Your task to perform on an android device: turn on javascript in the chrome app Image 0: 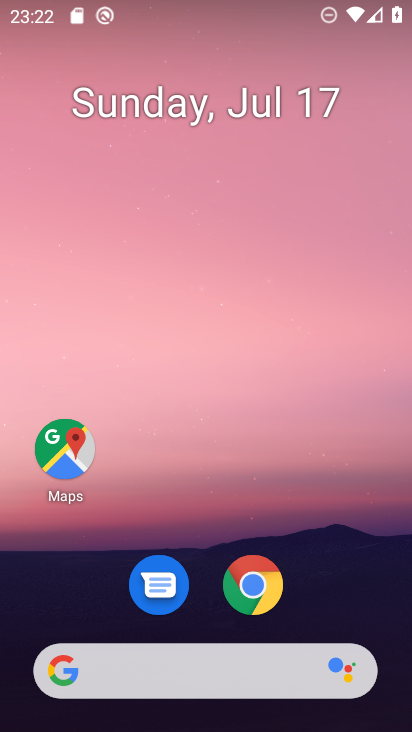
Step 0: click (259, 600)
Your task to perform on an android device: turn on javascript in the chrome app Image 1: 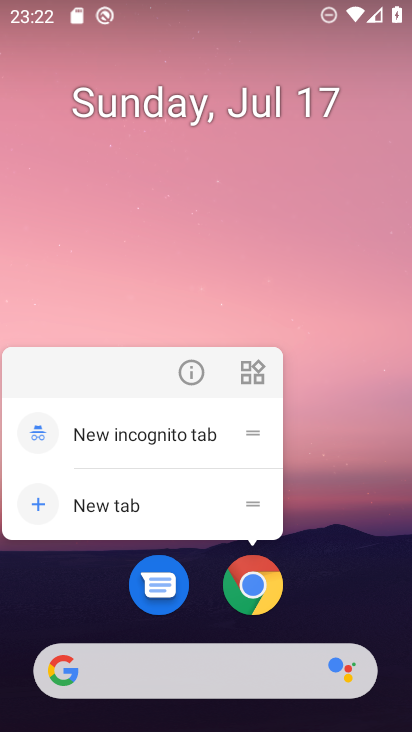
Step 1: click (248, 581)
Your task to perform on an android device: turn on javascript in the chrome app Image 2: 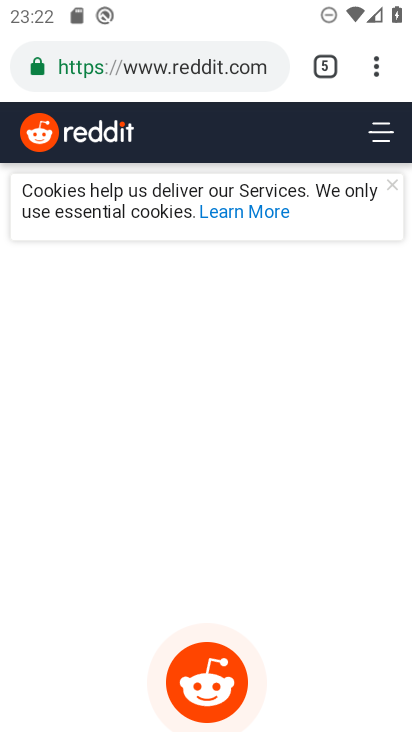
Step 2: drag from (373, 61) to (209, 594)
Your task to perform on an android device: turn on javascript in the chrome app Image 3: 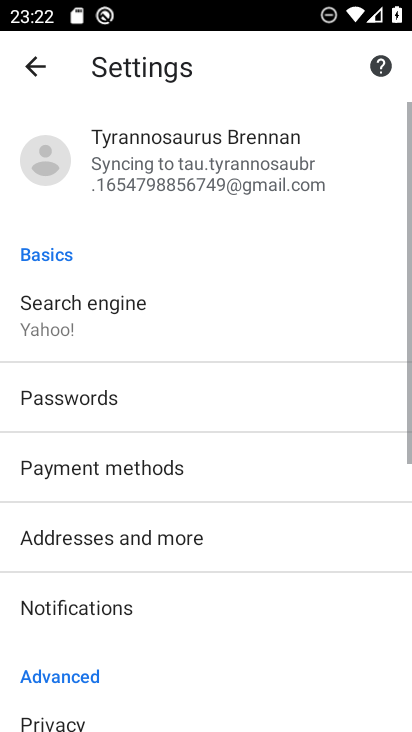
Step 3: drag from (195, 549) to (316, 199)
Your task to perform on an android device: turn on javascript in the chrome app Image 4: 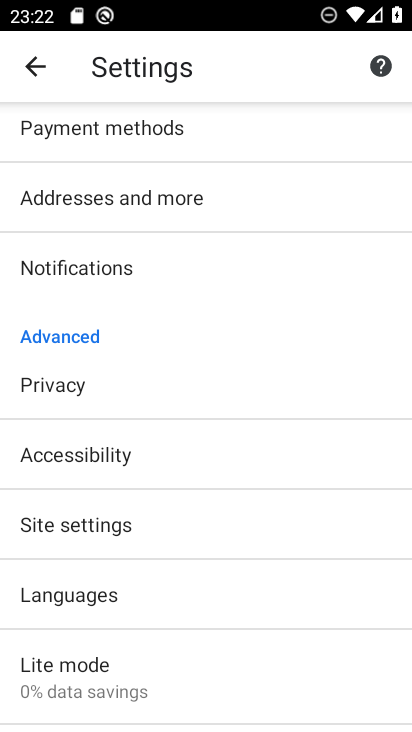
Step 4: click (119, 540)
Your task to perform on an android device: turn on javascript in the chrome app Image 5: 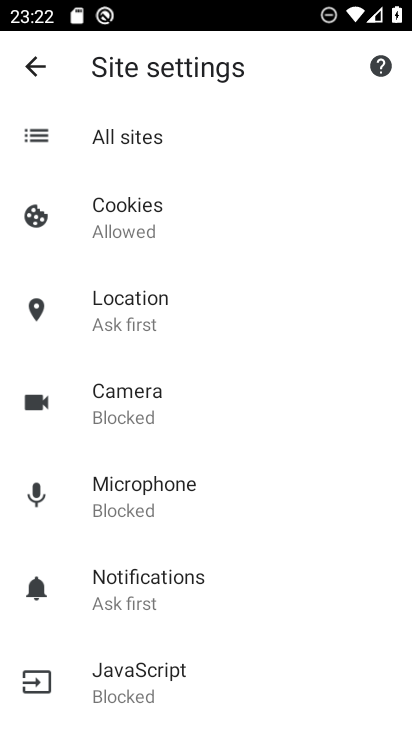
Step 5: click (170, 677)
Your task to perform on an android device: turn on javascript in the chrome app Image 6: 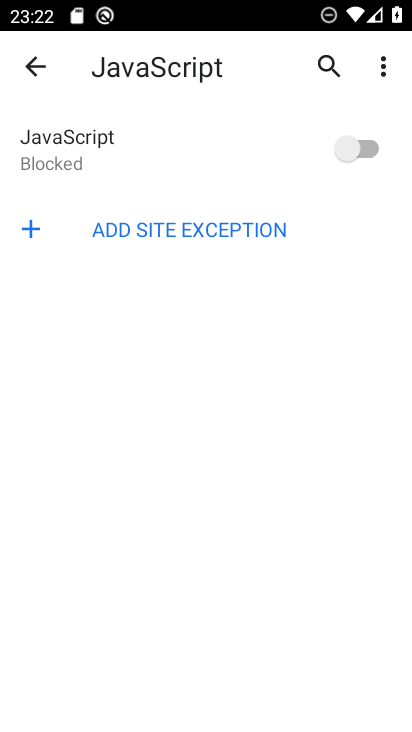
Step 6: click (362, 143)
Your task to perform on an android device: turn on javascript in the chrome app Image 7: 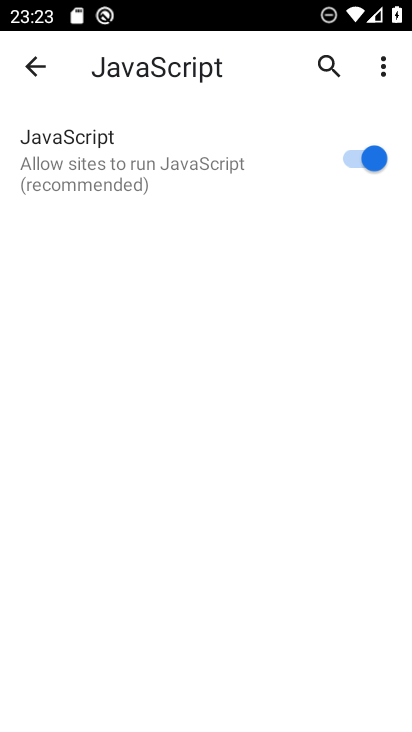
Step 7: task complete